Your task to perform on an android device: install app "Instagram" Image 0: 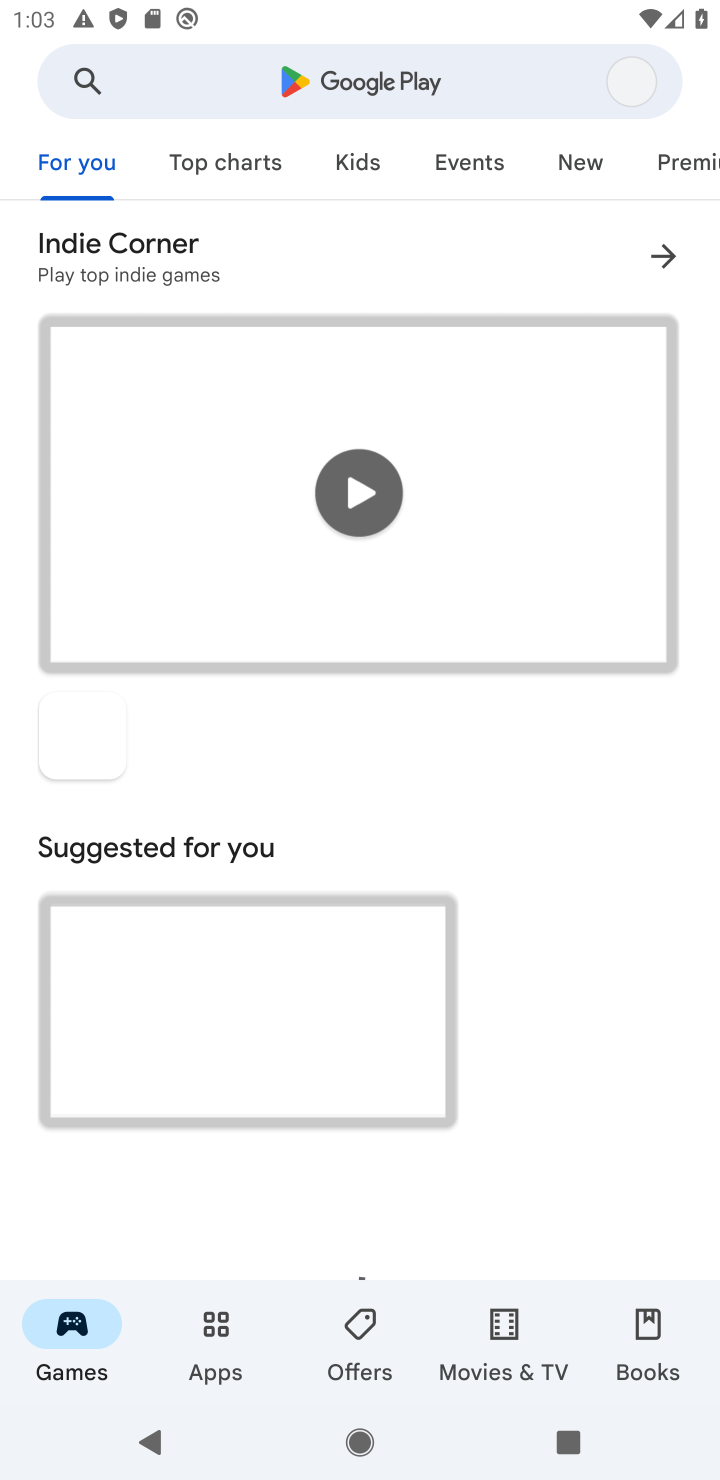
Step 0: press home button
Your task to perform on an android device: install app "Instagram" Image 1: 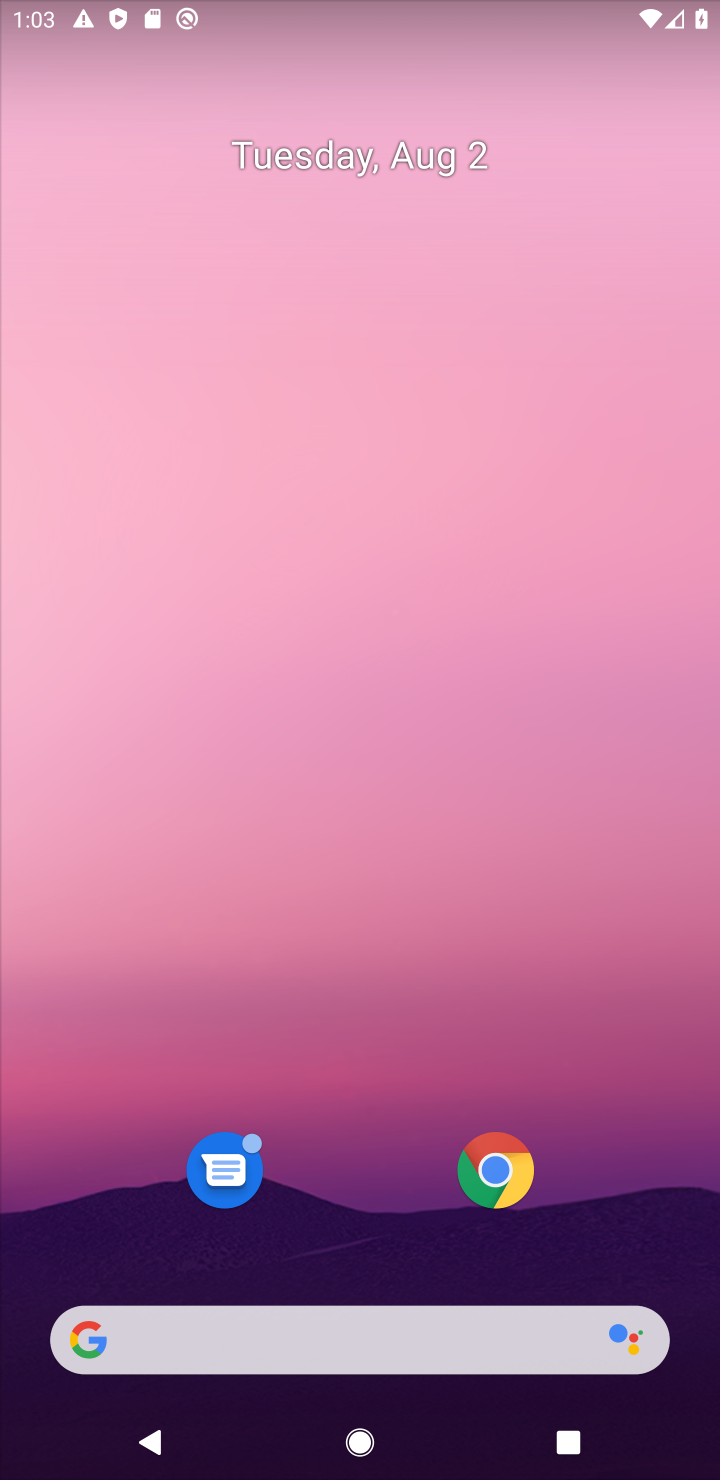
Step 1: drag from (349, 927) to (419, 90)
Your task to perform on an android device: install app "Instagram" Image 2: 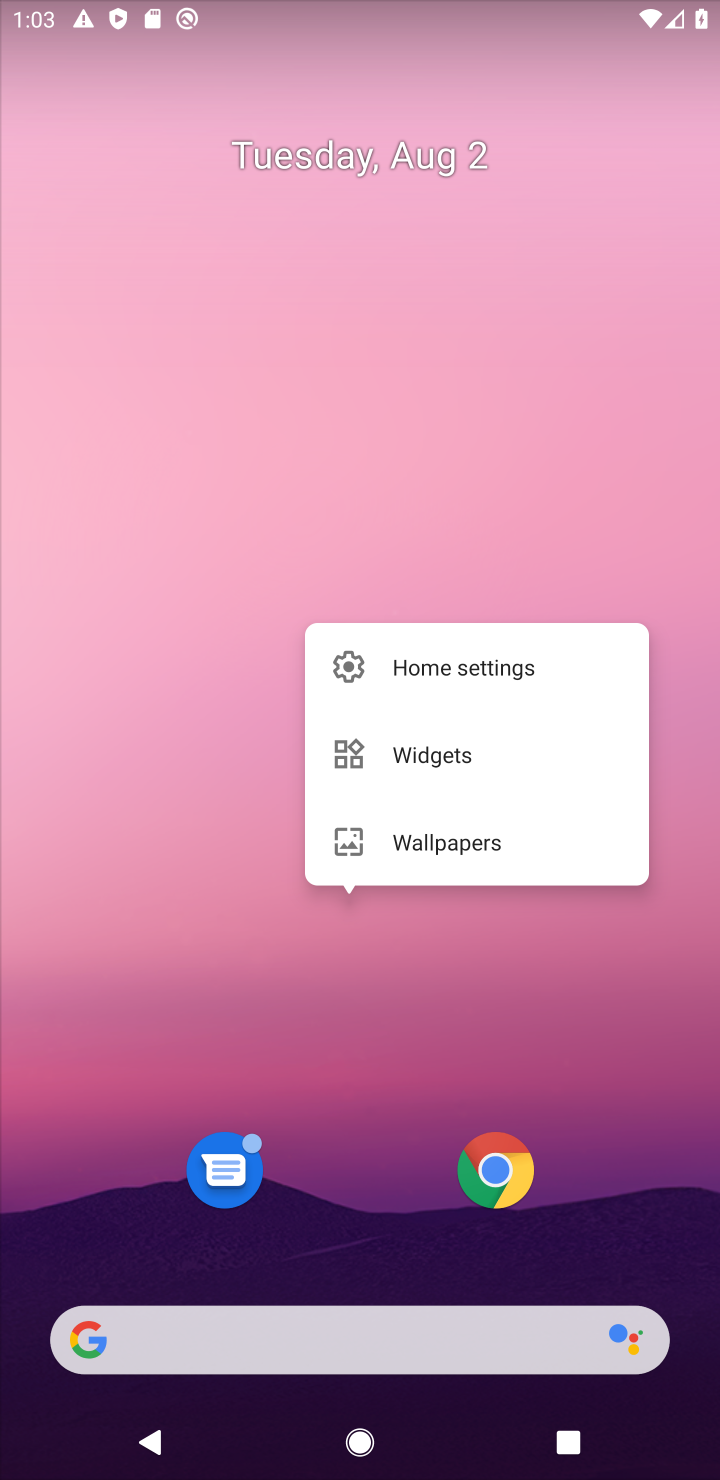
Step 2: click (673, 1046)
Your task to perform on an android device: install app "Instagram" Image 3: 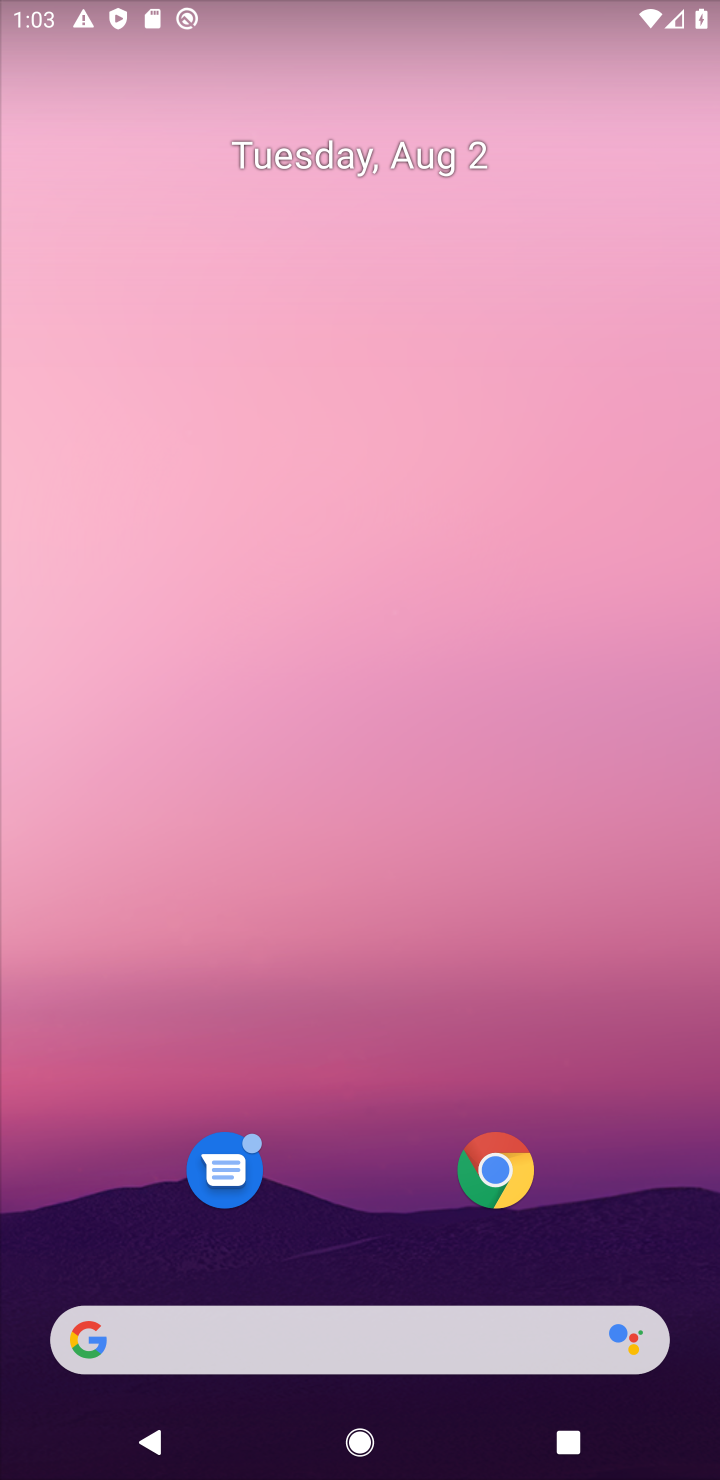
Step 3: drag from (352, 1184) to (425, 93)
Your task to perform on an android device: install app "Instagram" Image 4: 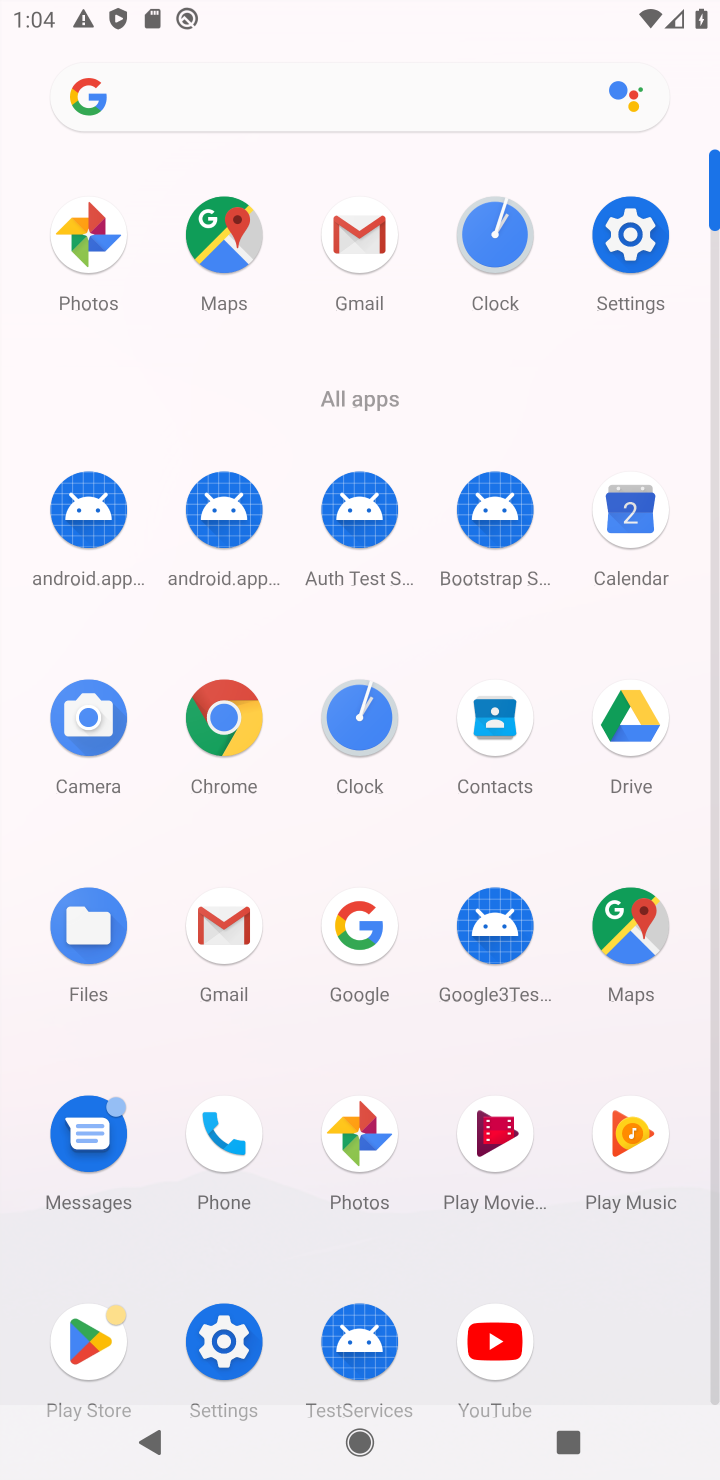
Step 4: click (80, 1351)
Your task to perform on an android device: install app "Instagram" Image 5: 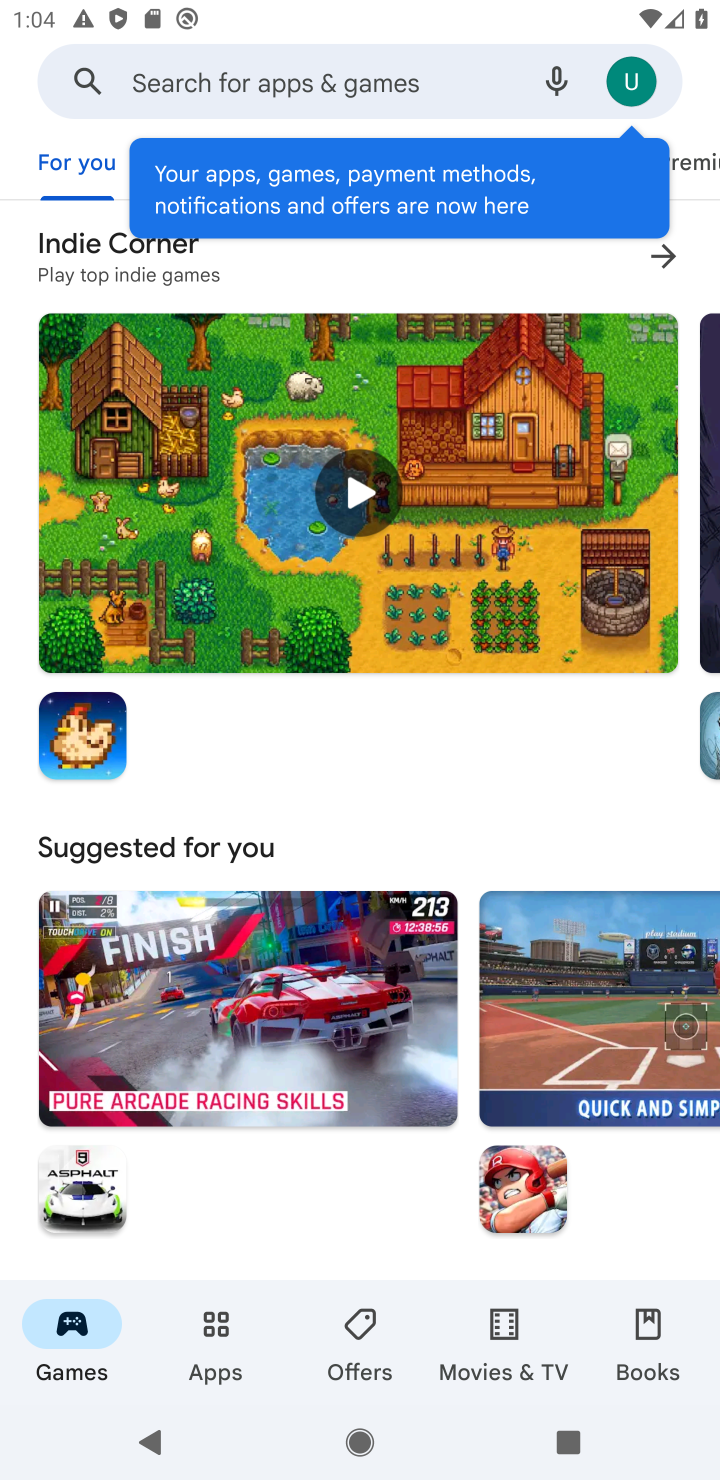
Step 5: click (420, 86)
Your task to perform on an android device: install app "Instagram" Image 6: 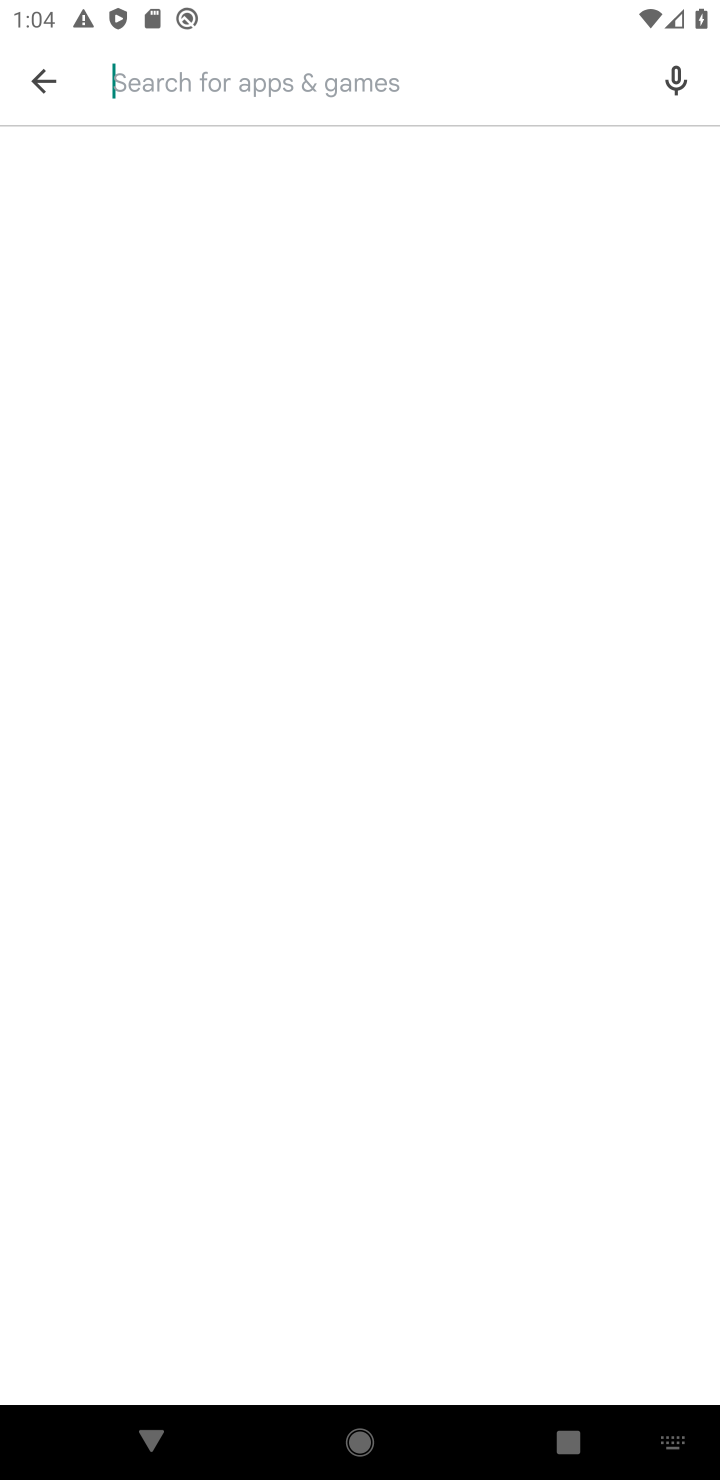
Step 6: type "instagram"
Your task to perform on an android device: install app "Instagram" Image 7: 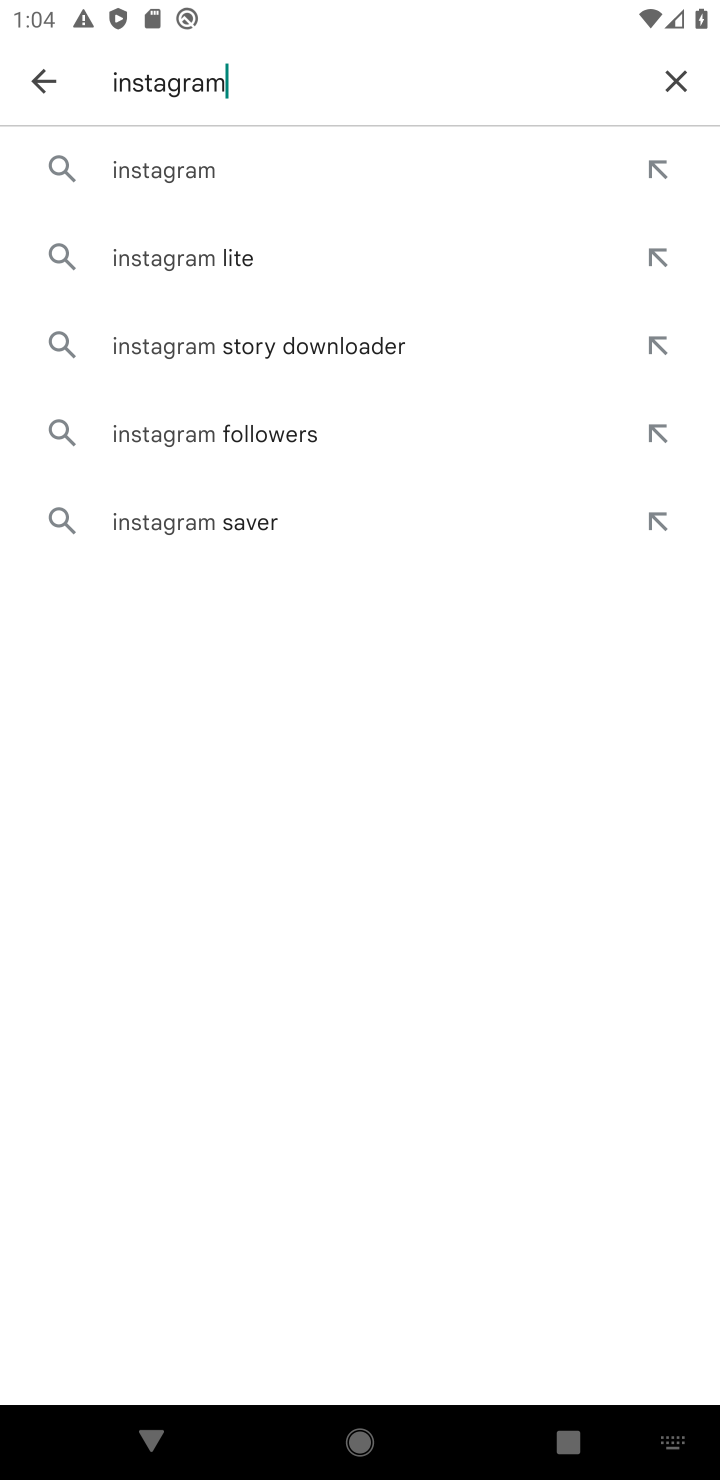
Step 7: click (298, 169)
Your task to perform on an android device: install app "Instagram" Image 8: 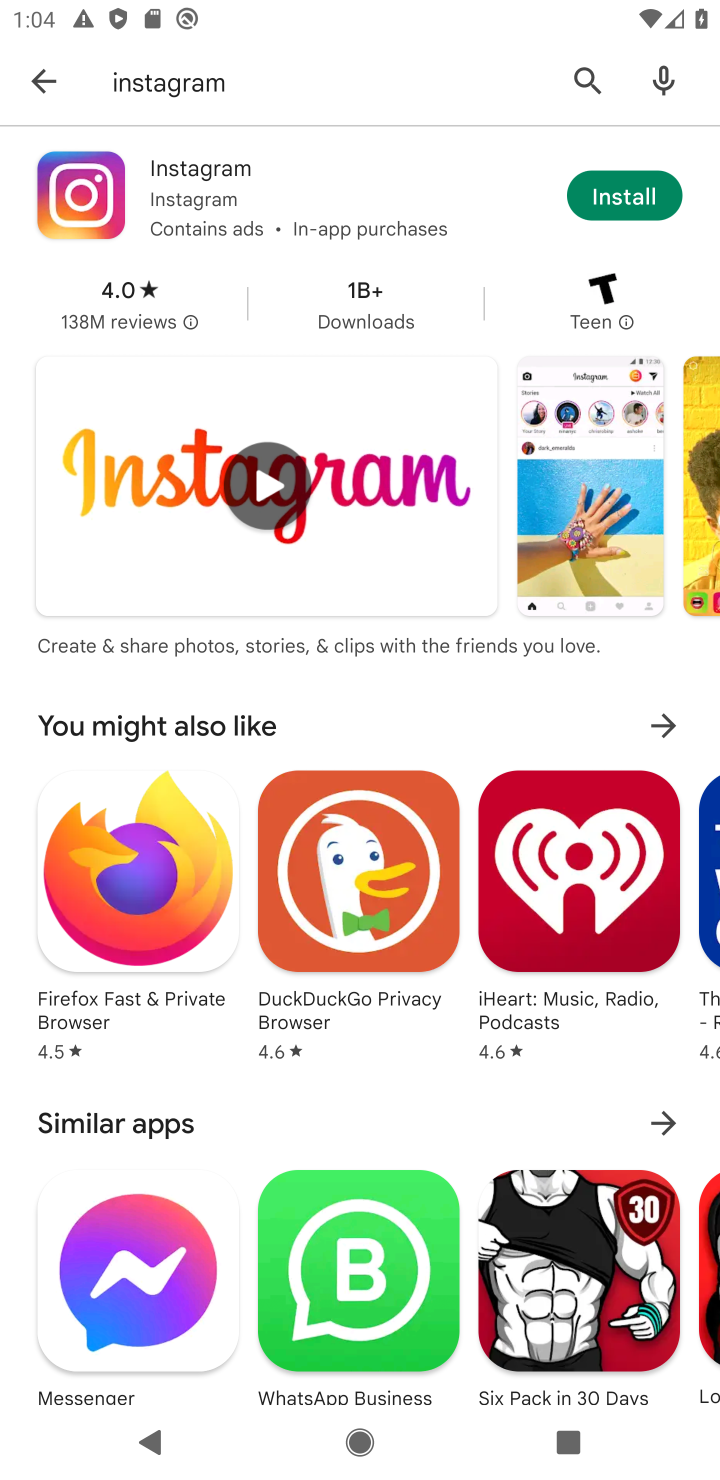
Step 8: click (648, 191)
Your task to perform on an android device: install app "Instagram" Image 9: 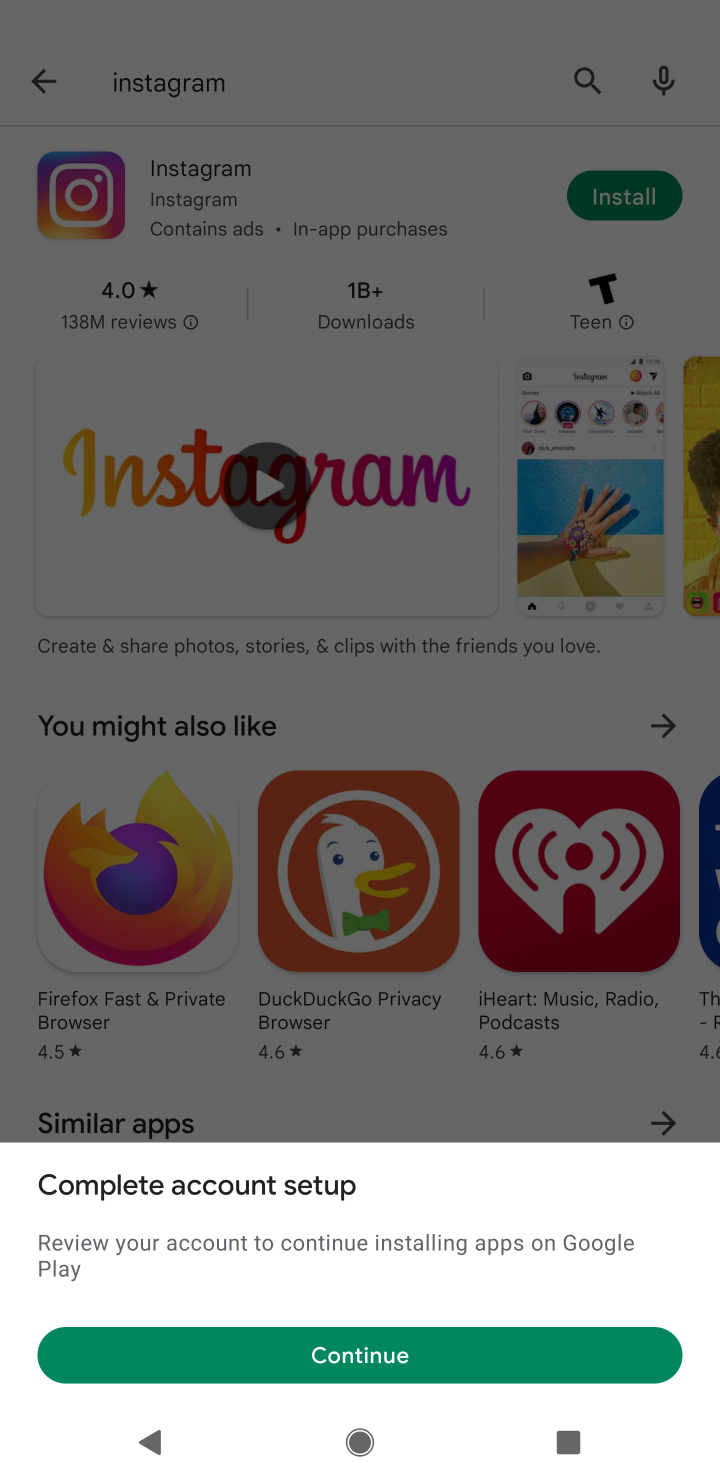
Step 9: click (487, 1364)
Your task to perform on an android device: install app "Instagram" Image 10: 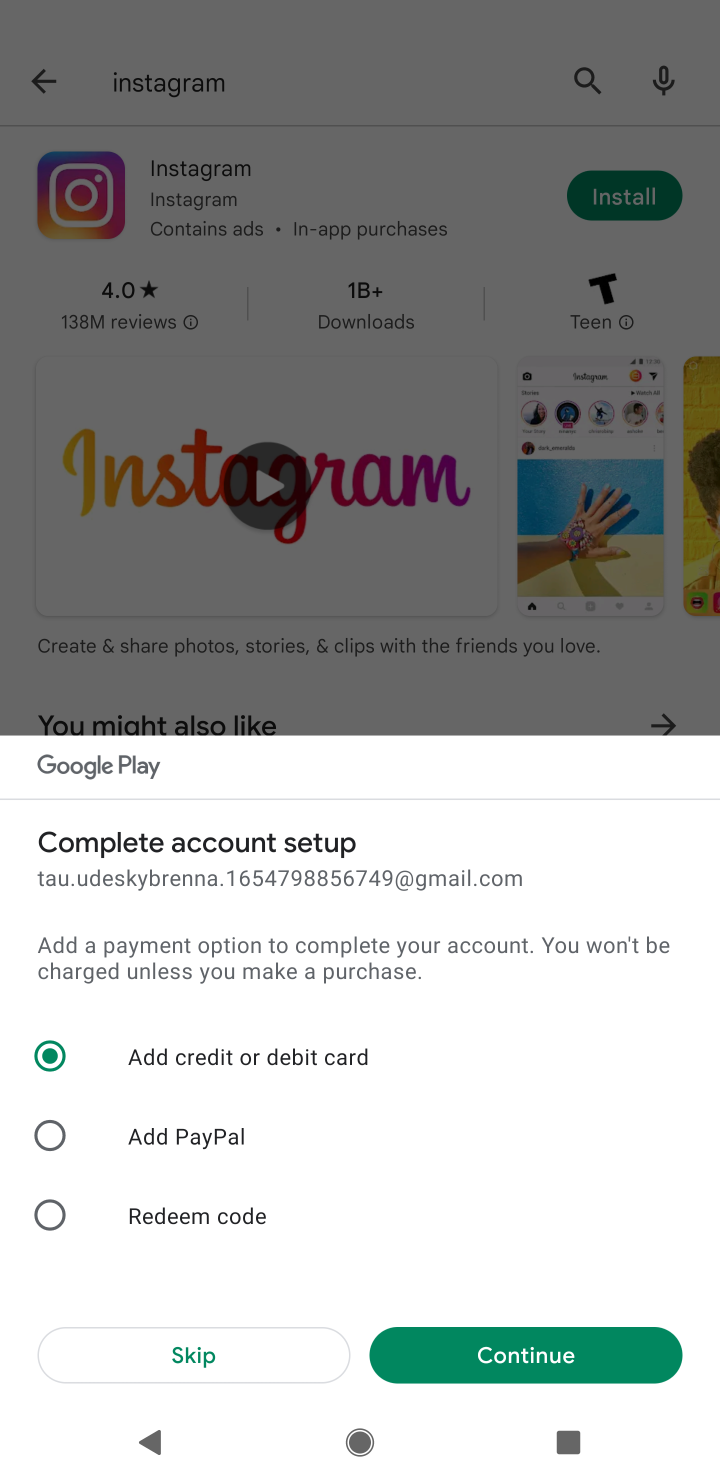
Step 10: click (256, 1353)
Your task to perform on an android device: install app "Instagram" Image 11: 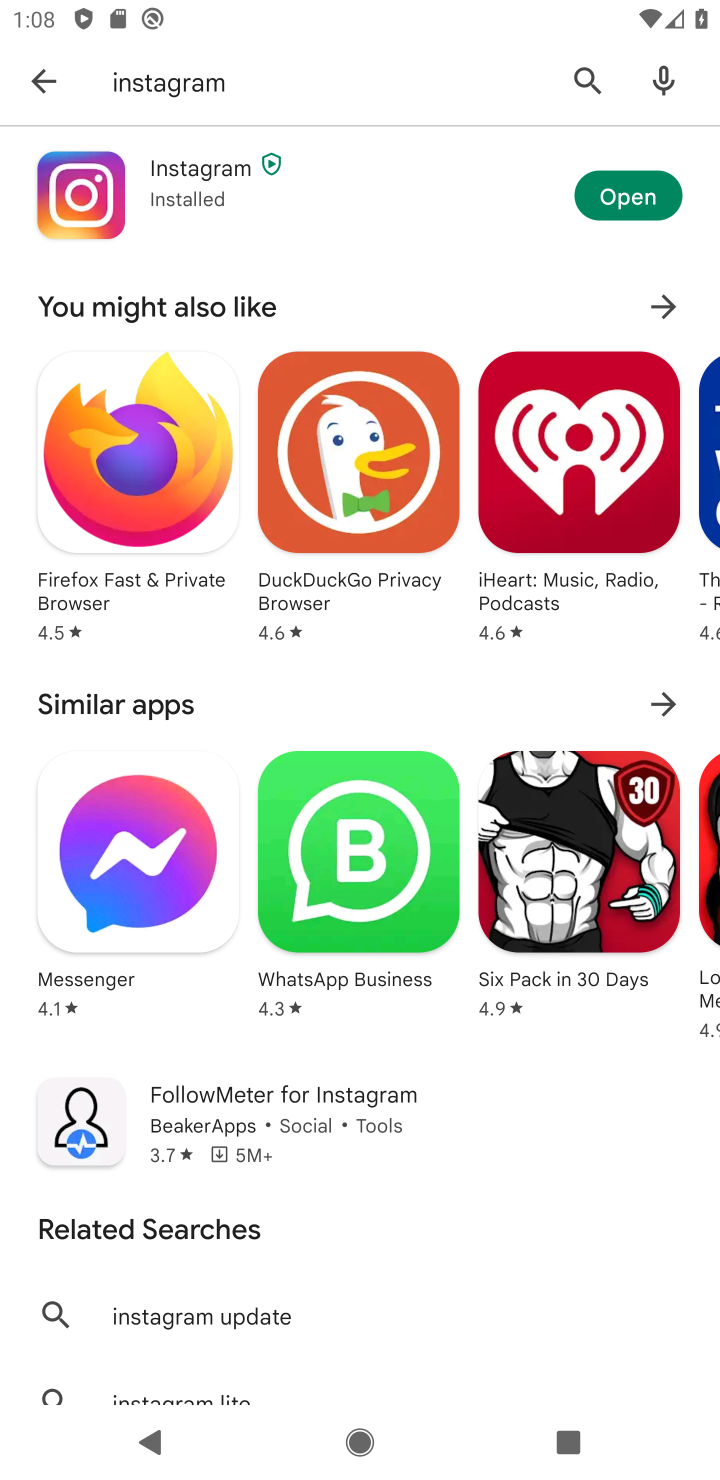
Step 11: task complete